Your task to perform on an android device: empty trash in the gmail app Image 0: 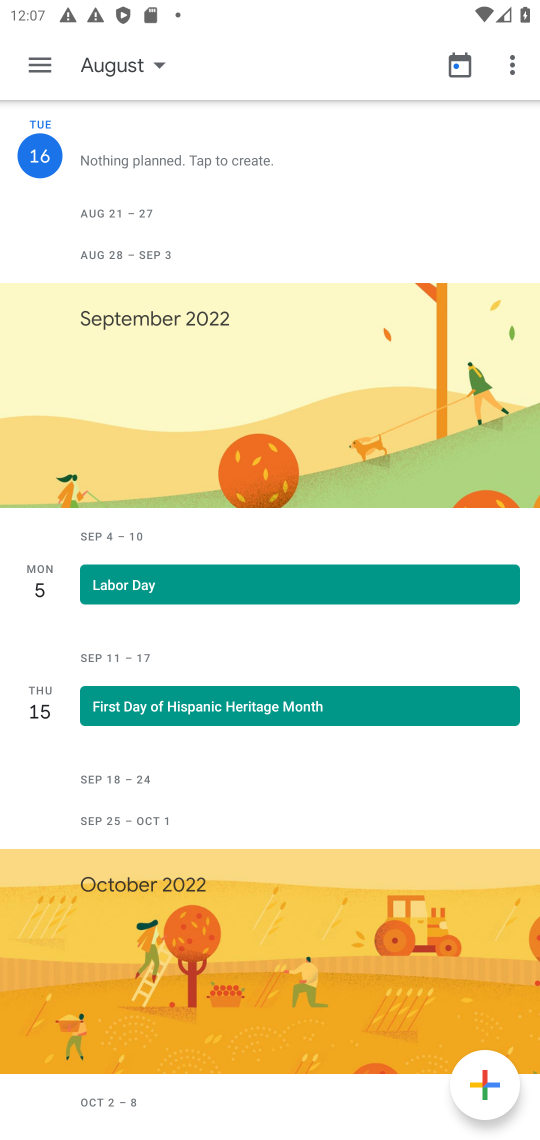
Step 0: press home button
Your task to perform on an android device: empty trash in the gmail app Image 1: 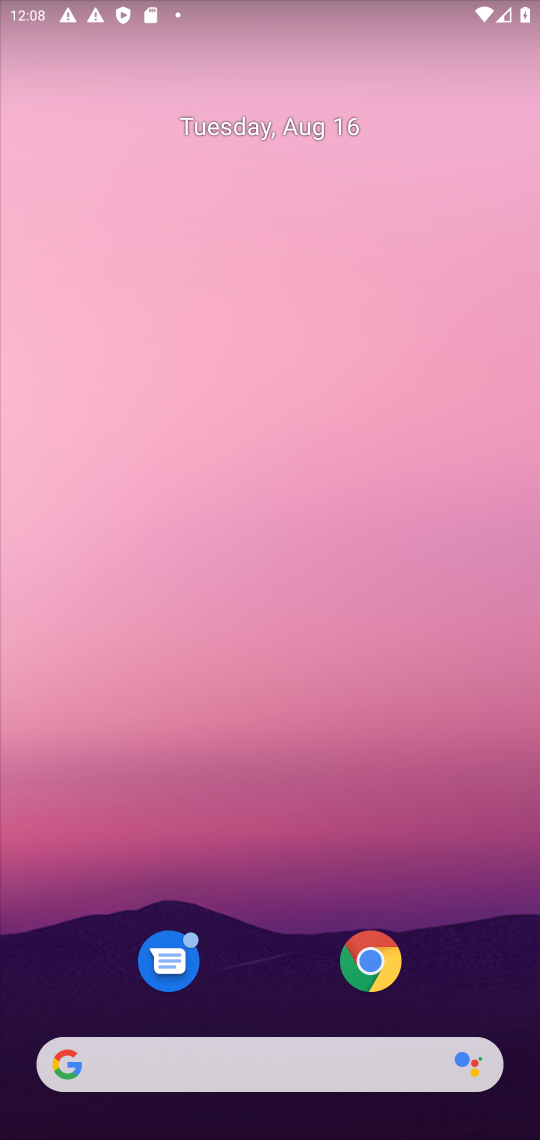
Step 1: drag from (212, 990) to (309, 50)
Your task to perform on an android device: empty trash in the gmail app Image 2: 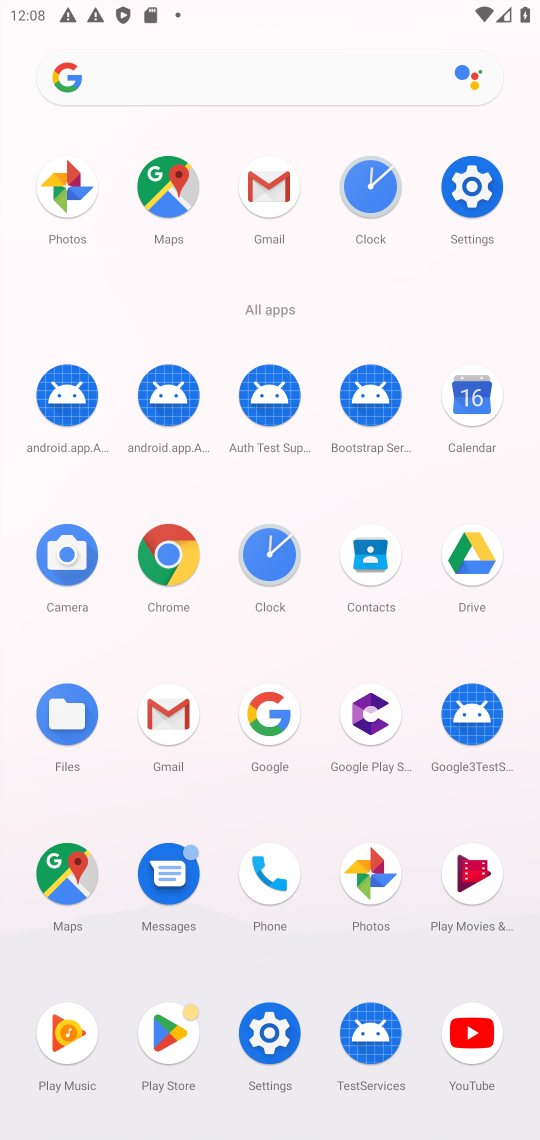
Step 2: click (164, 701)
Your task to perform on an android device: empty trash in the gmail app Image 3: 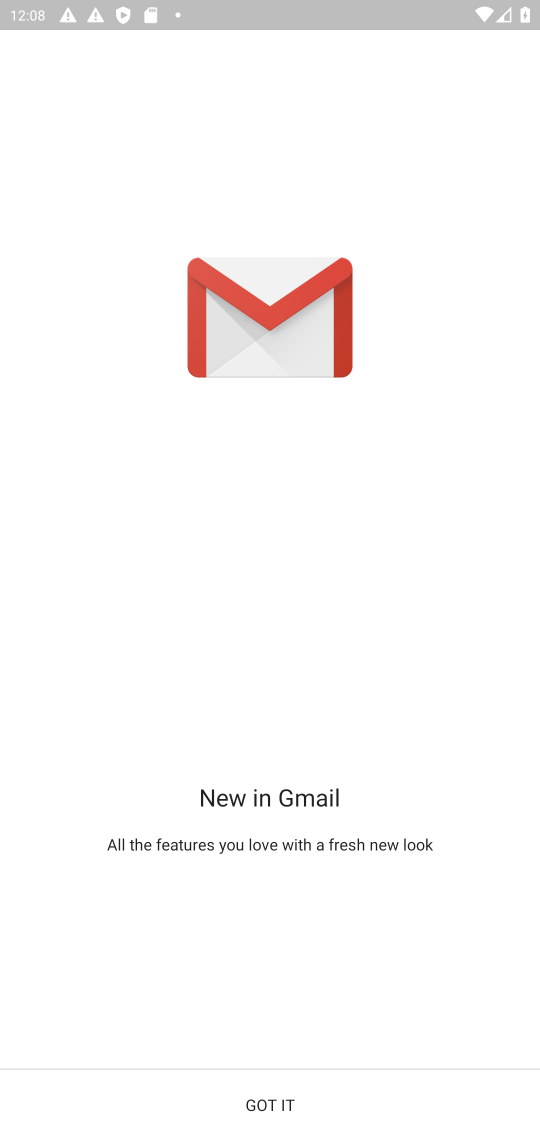
Step 3: click (278, 1103)
Your task to perform on an android device: empty trash in the gmail app Image 4: 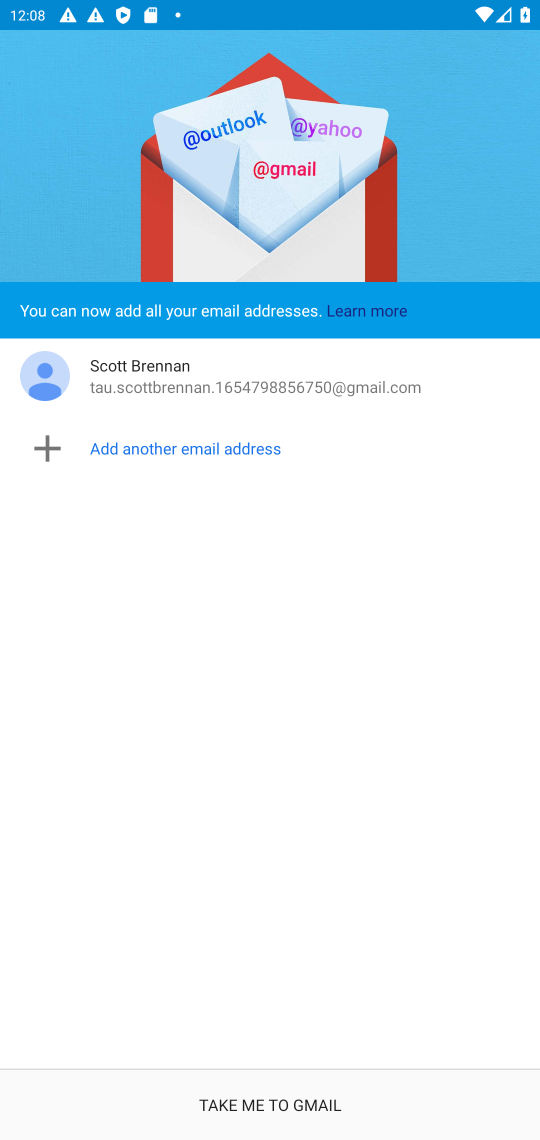
Step 4: click (290, 1092)
Your task to perform on an android device: empty trash in the gmail app Image 5: 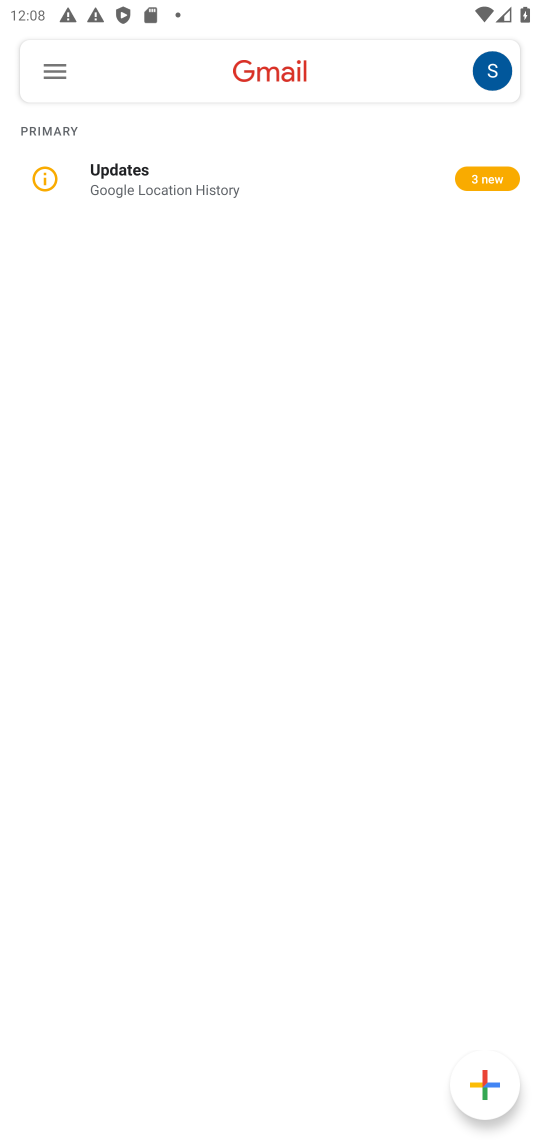
Step 5: click (56, 70)
Your task to perform on an android device: empty trash in the gmail app Image 6: 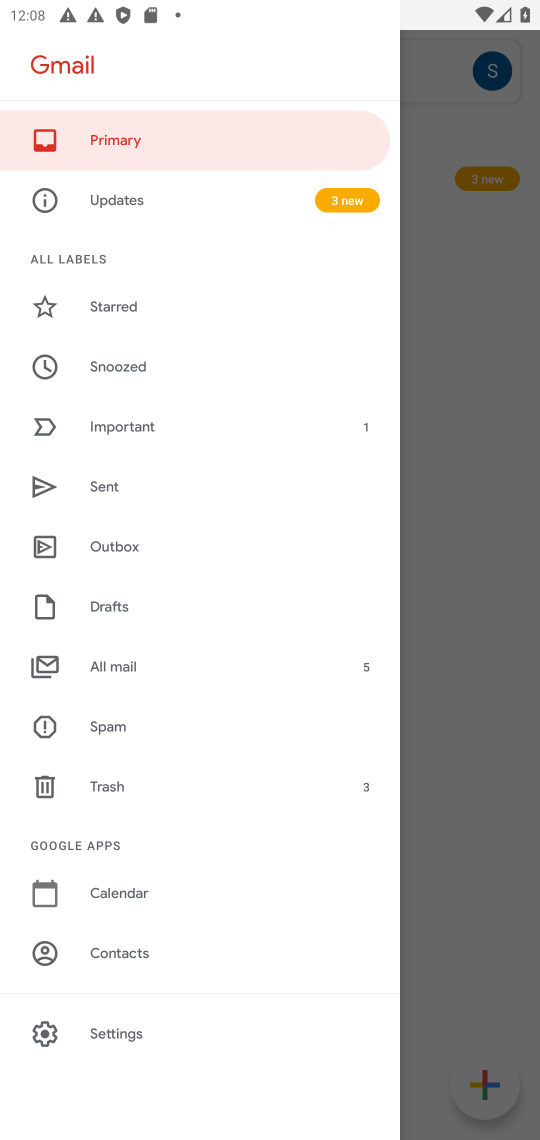
Step 6: click (78, 784)
Your task to perform on an android device: empty trash in the gmail app Image 7: 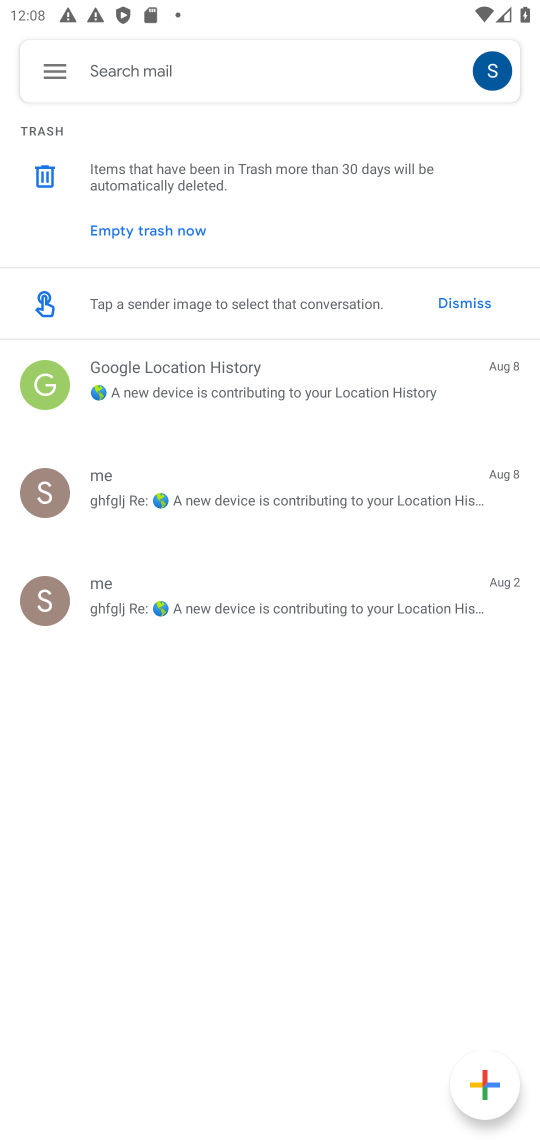
Step 7: click (59, 378)
Your task to perform on an android device: empty trash in the gmail app Image 8: 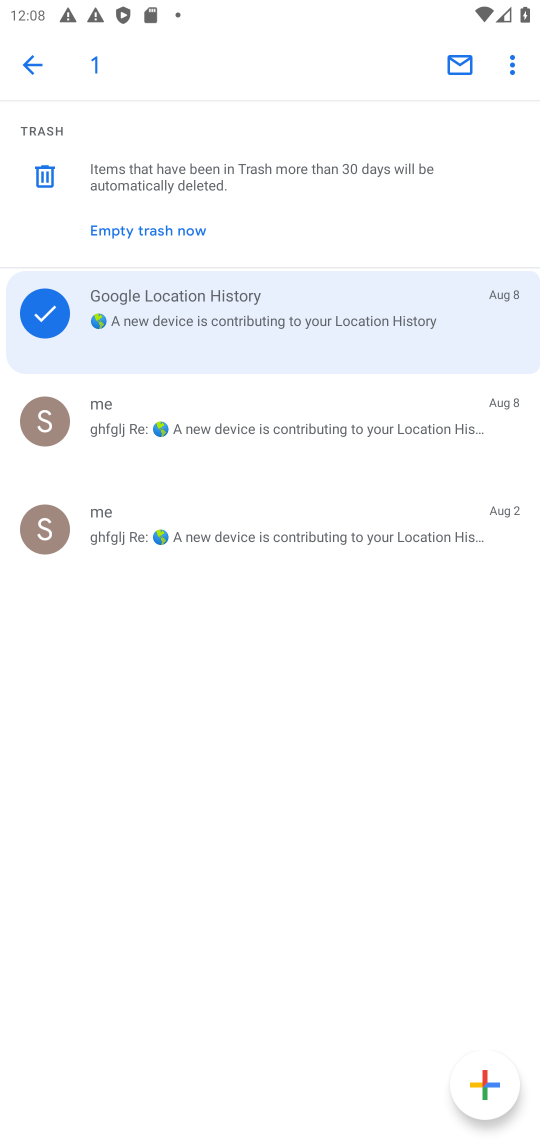
Step 8: click (50, 493)
Your task to perform on an android device: empty trash in the gmail app Image 9: 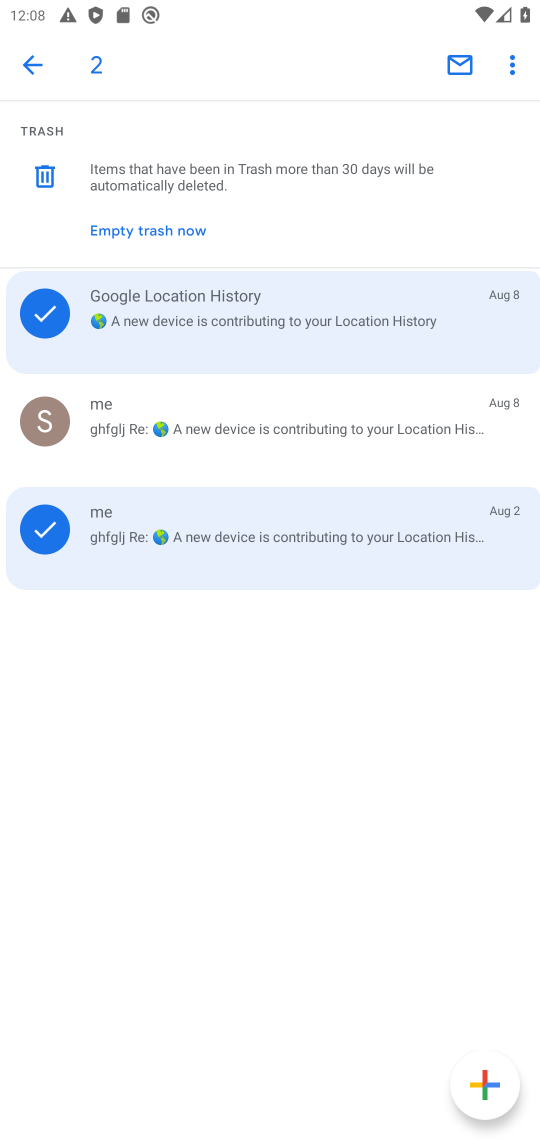
Step 9: click (38, 428)
Your task to perform on an android device: empty trash in the gmail app Image 10: 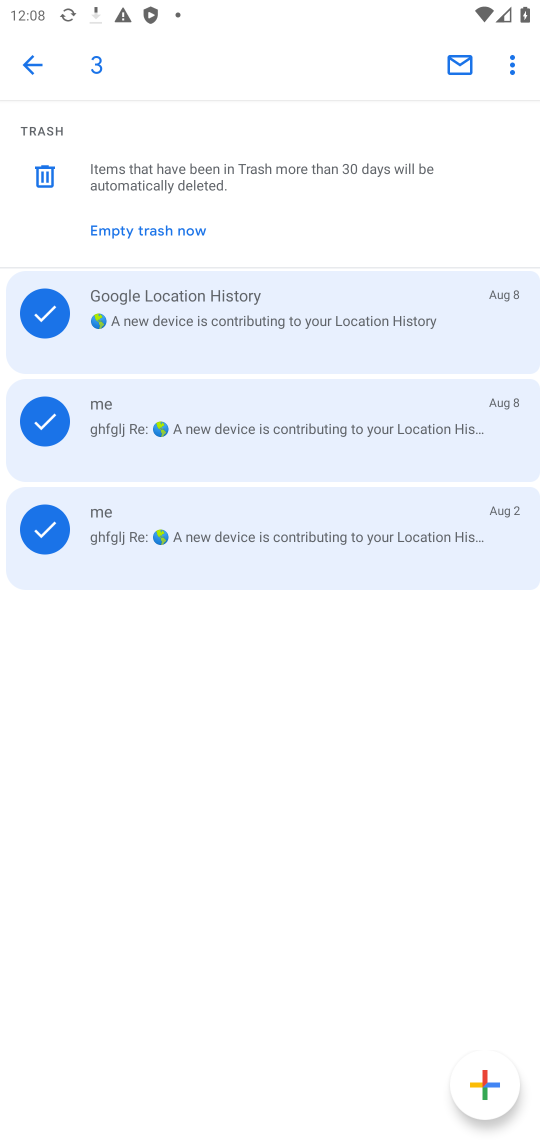
Step 10: click (43, 181)
Your task to perform on an android device: empty trash in the gmail app Image 11: 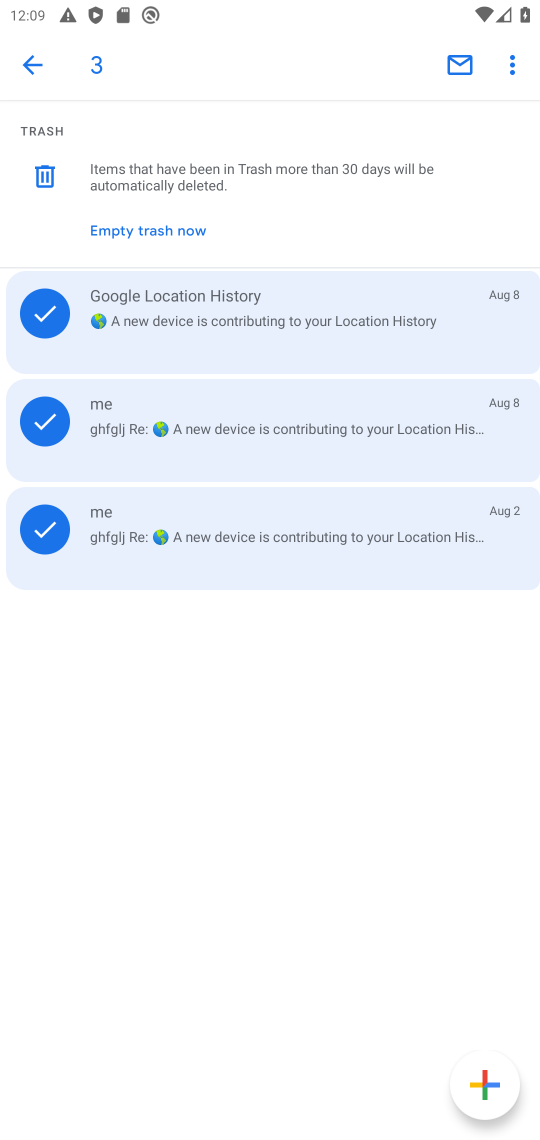
Step 11: click (509, 71)
Your task to perform on an android device: empty trash in the gmail app Image 12: 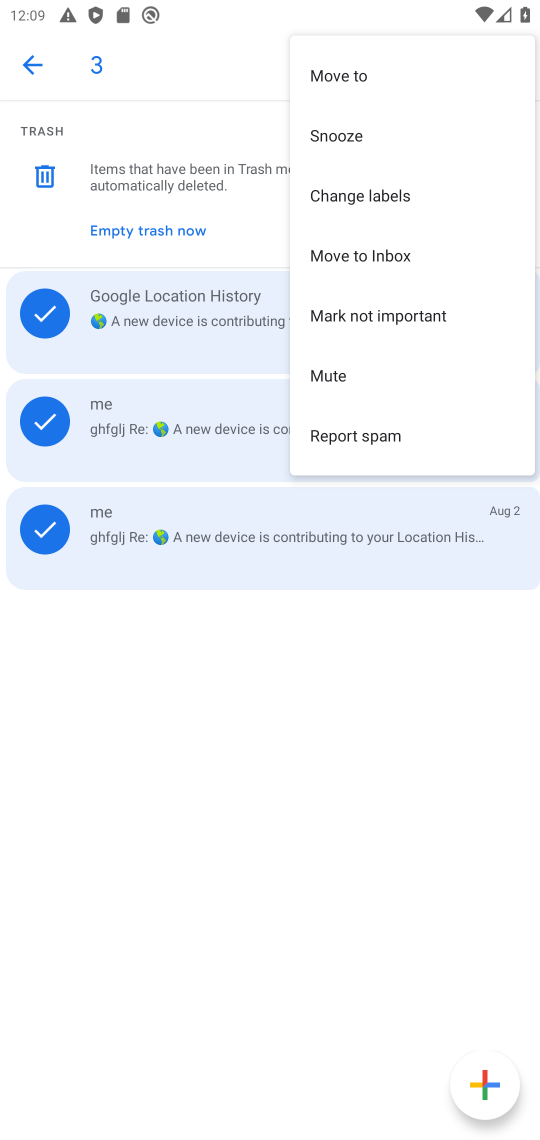
Step 12: click (312, 615)
Your task to perform on an android device: empty trash in the gmail app Image 13: 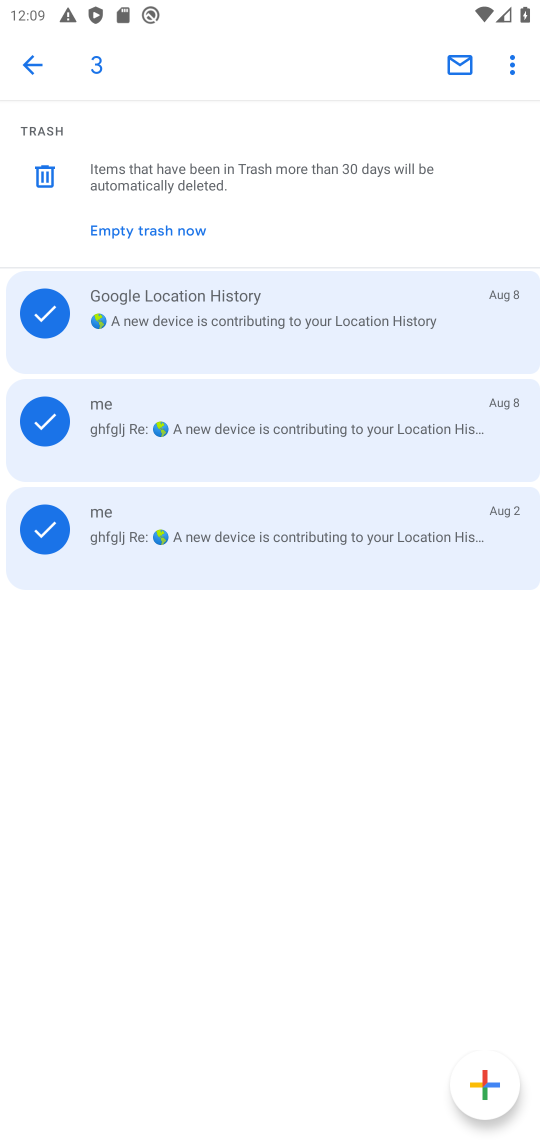
Step 13: drag from (375, 543) to (539, 514)
Your task to perform on an android device: empty trash in the gmail app Image 14: 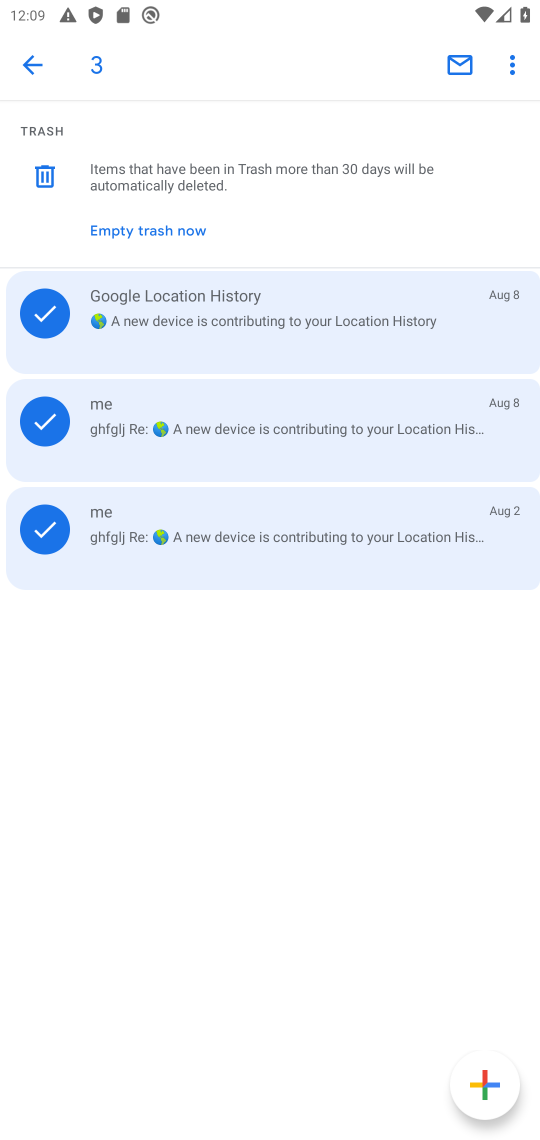
Step 14: drag from (450, 435) to (27, 417)
Your task to perform on an android device: empty trash in the gmail app Image 15: 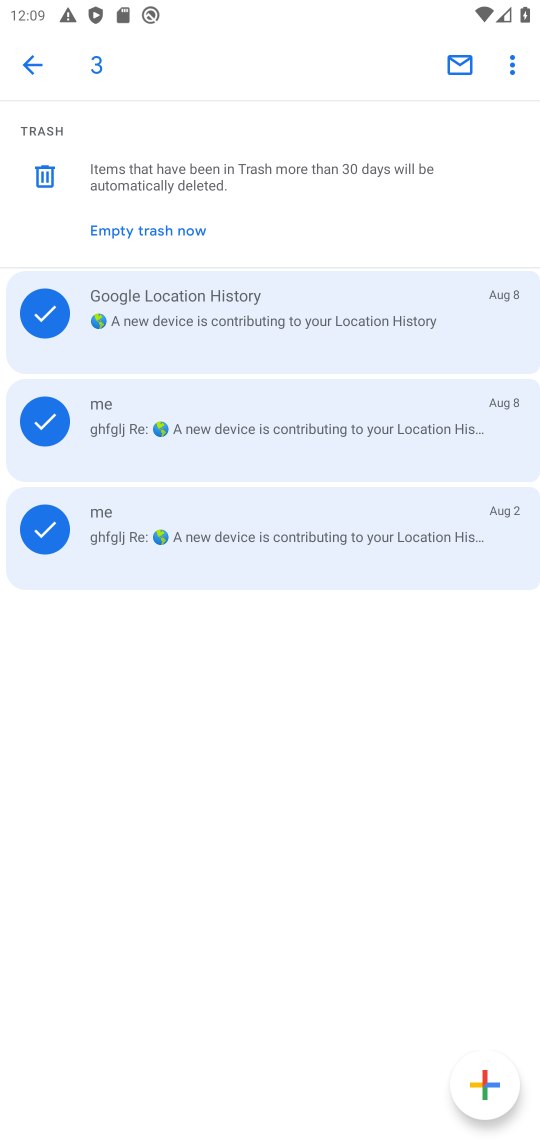
Step 15: drag from (286, 323) to (38, 328)
Your task to perform on an android device: empty trash in the gmail app Image 16: 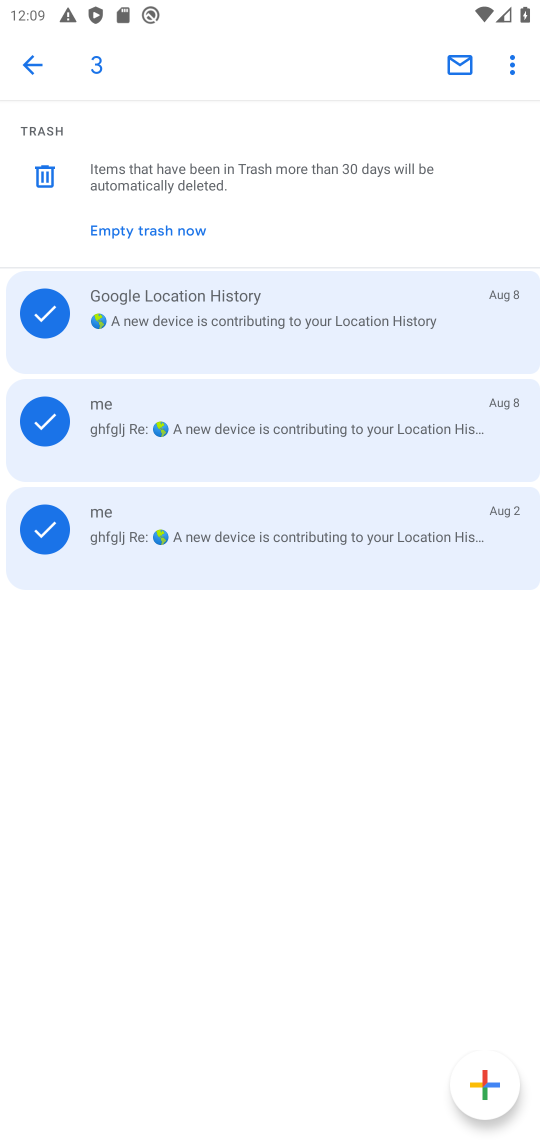
Step 16: click (39, 166)
Your task to perform on an android device: empty trash in the gmail app Image 17: 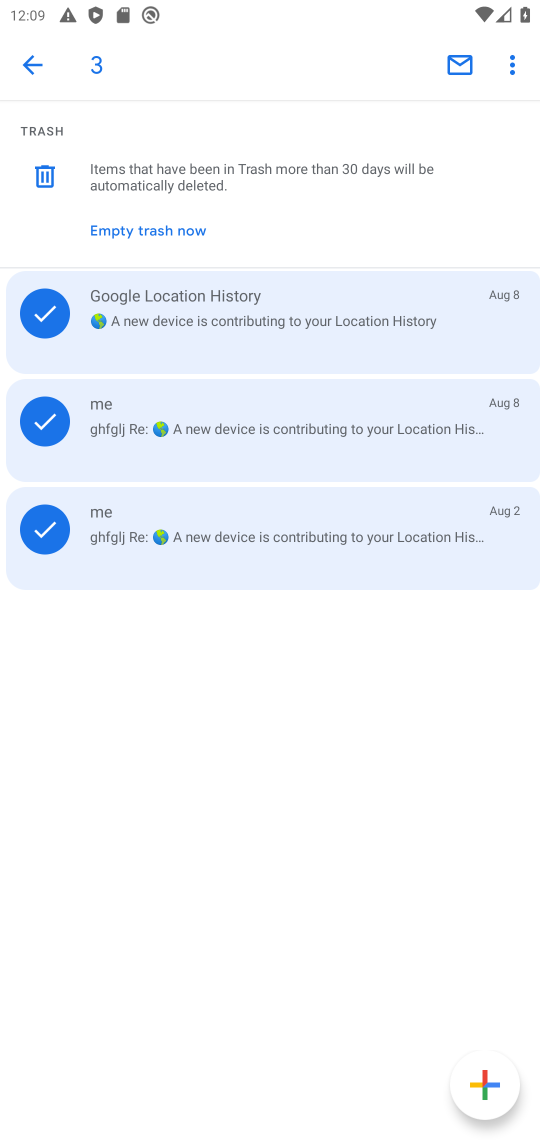
Step 17: click (327, 218)
Your task to perform on an android device: empty trash in the gmail app Image 18: 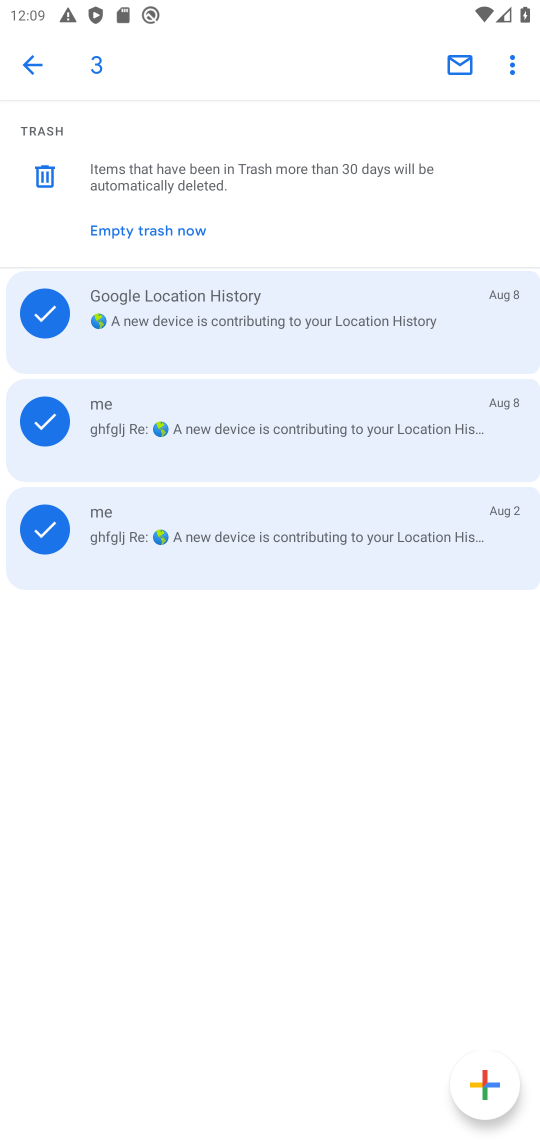
Step 18: click (40, 309)
Your task to perform on an android device: empty trash in the gmail app Image 19: 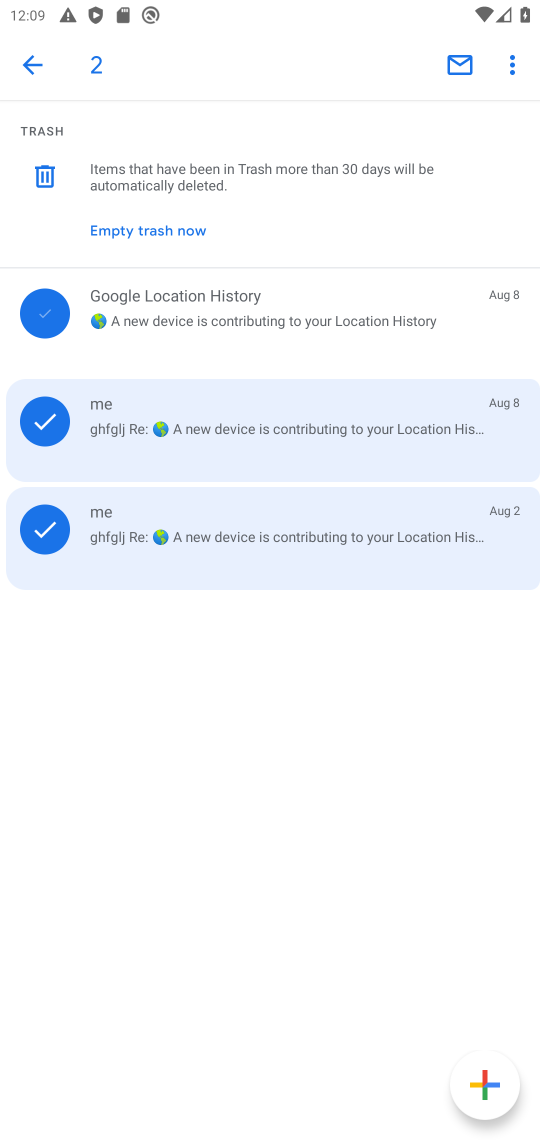
Step 19: click (40, 415)
Your task to perform on an android device: empty trash in the gmail app Image 20: 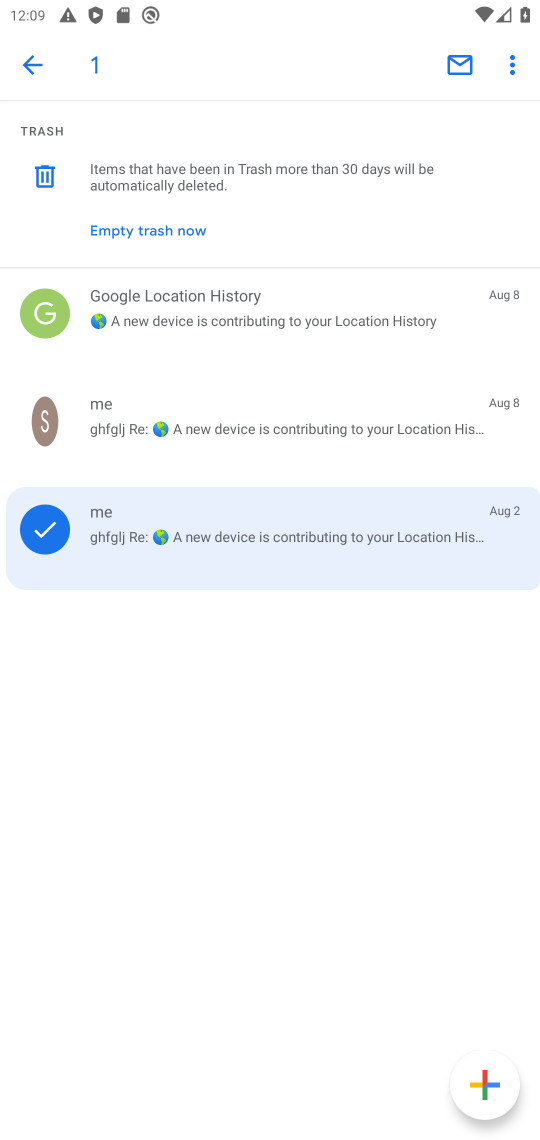
Step 20: click (54, 505)
Your task to perform on an android device: empty trash in the gmail app Image 21: 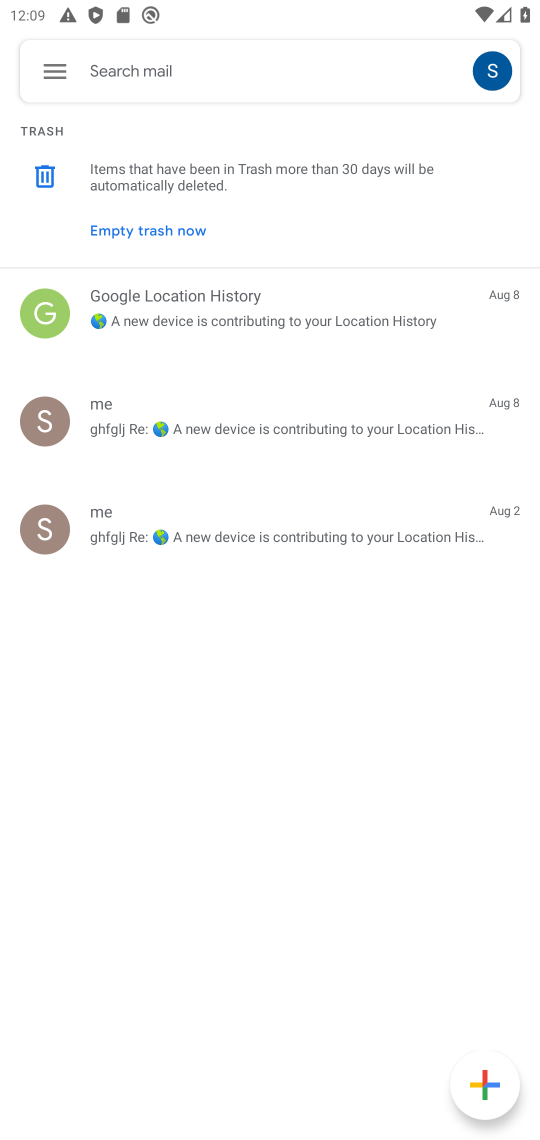
Step 21: click (133, 308)
Your task to perform on an android device: empty trash in the gmail app Image 22: 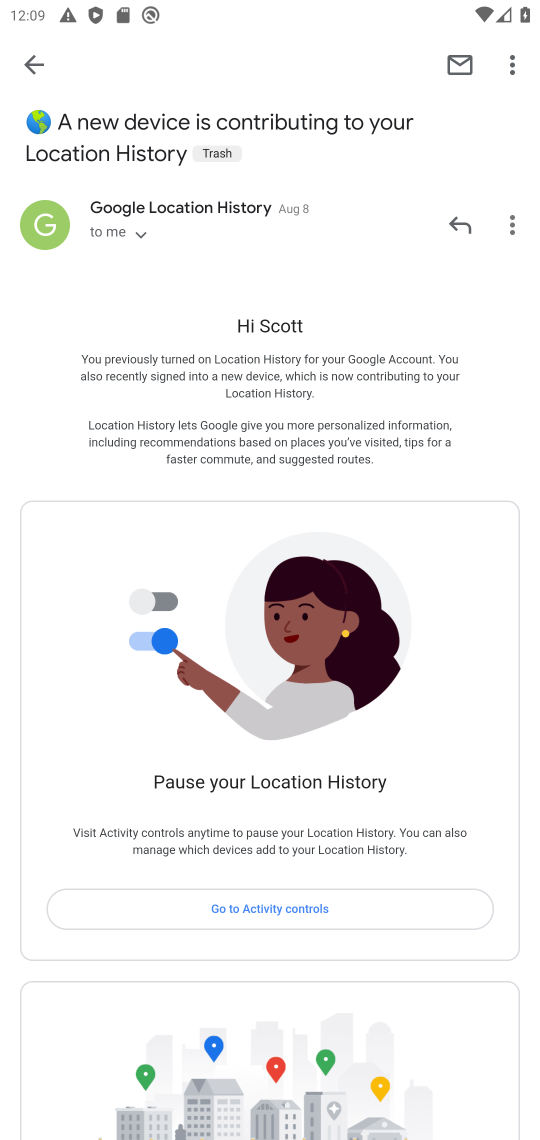
Step 22: click (510, 231)
Your task to perform on an android device: empty trash in the gmail app Image 23: 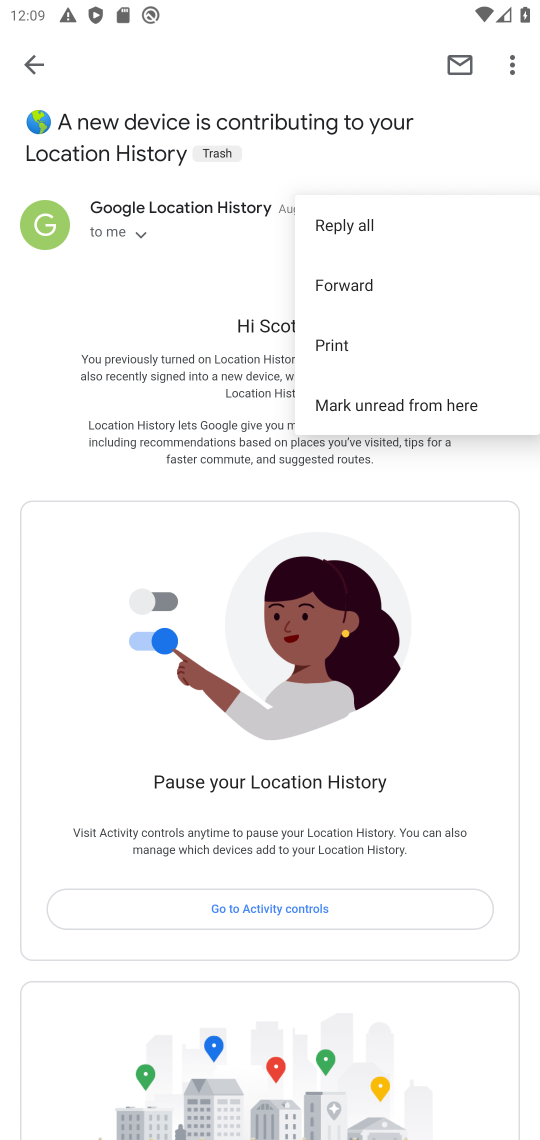
Step 23: click (129, 305)
Your task to perform on an android device: empty trash in the gmail app Image 24: 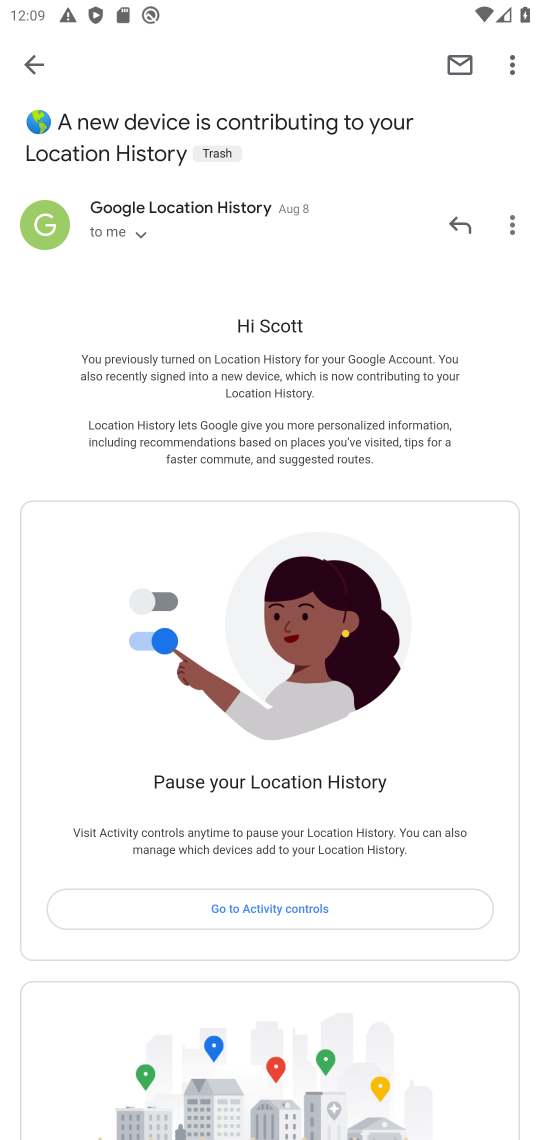
Step 24: click (4, 66)
Your task to perform on an android device: empty trash in the gmail app Image 25: 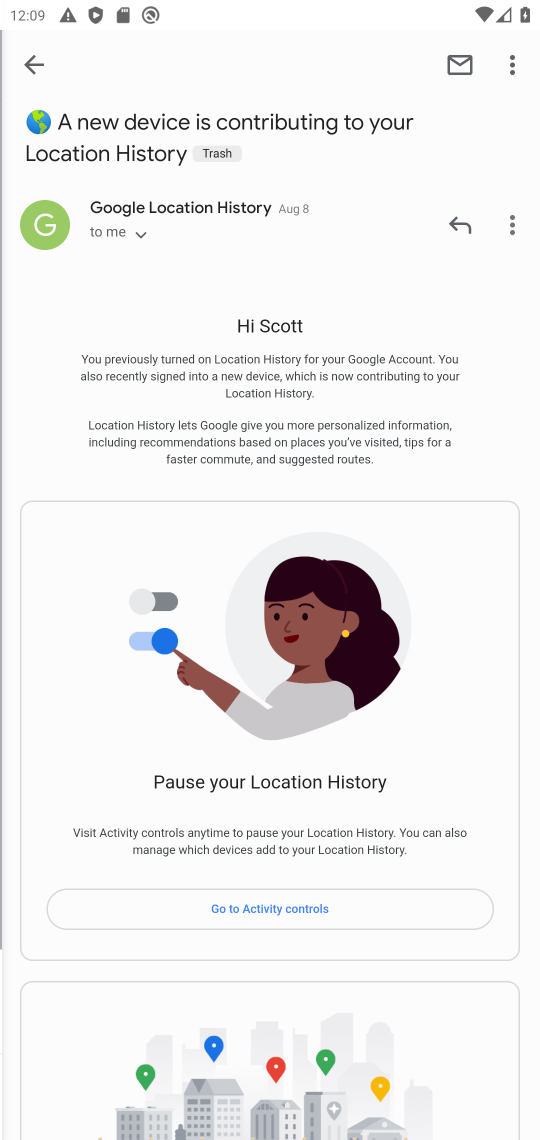
Step 25: click (10, 79)
Your task to perform on an android device: empty trash in the gmail app Image 26: 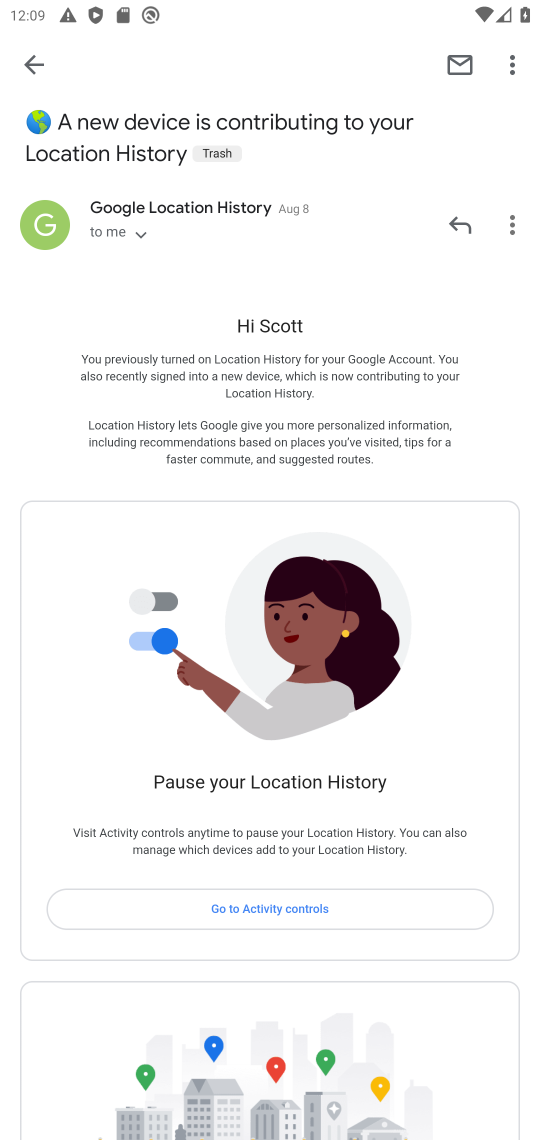
Step 26: click (36, 67)
Your task to perform on an android device: empty trash in the gmail app Image 27: 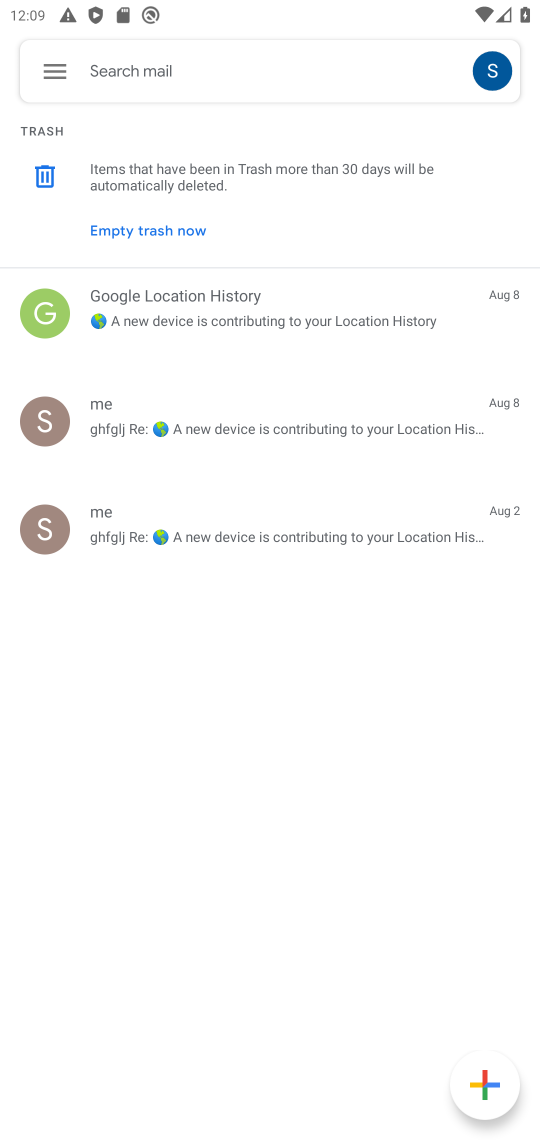
Step 27: click (151, 220)
Your task to perform on an android device: empty trash in the gmail app Image 28: 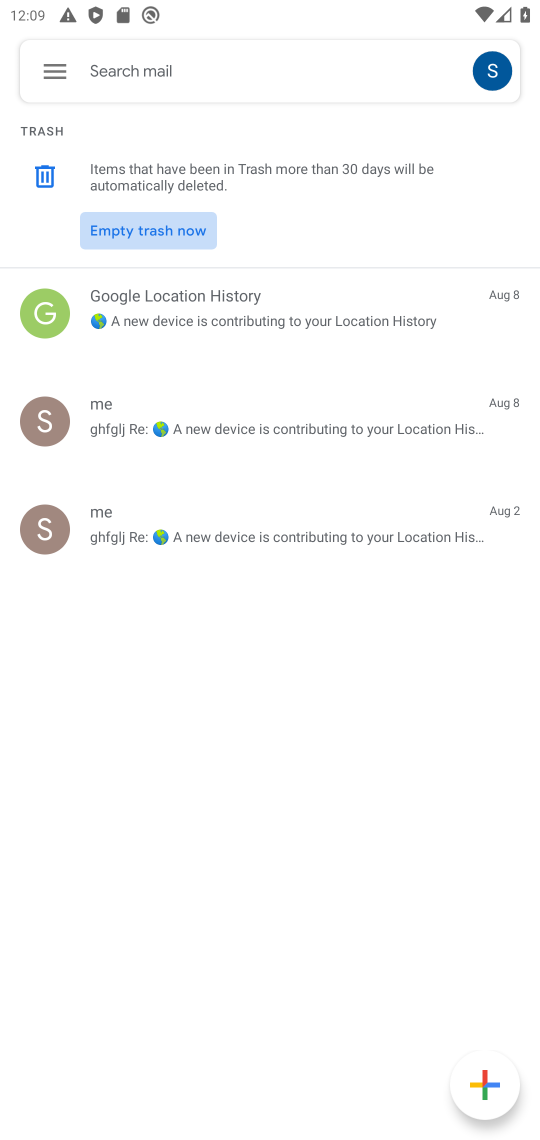
Step 28: click (154, 228)
Your task to perform on an android device: empty trash in the gmail app Image 29: 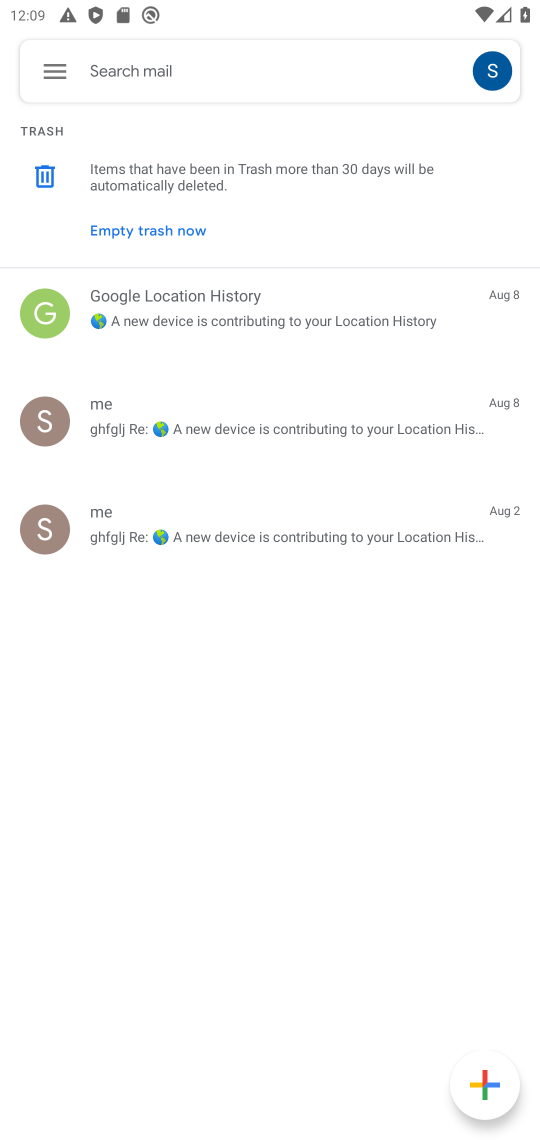
Step 29: click (178, 229)
Your task to perform on an android device: empty trash in the gmail app Image 30: 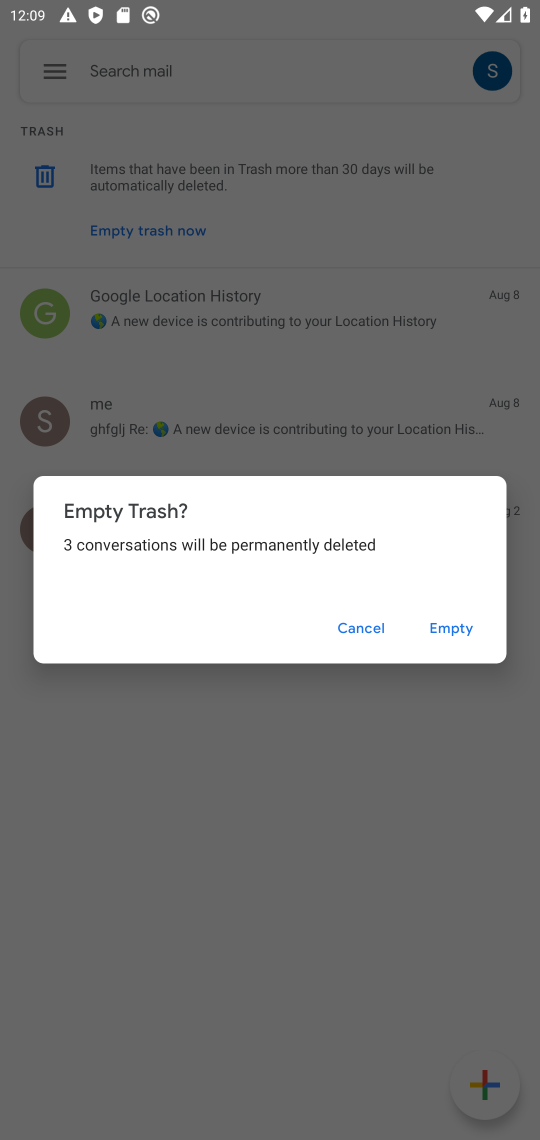
Step 30: click (446, 622)
Your task to perform on an android device: empty trash in the gmail app Image 31: 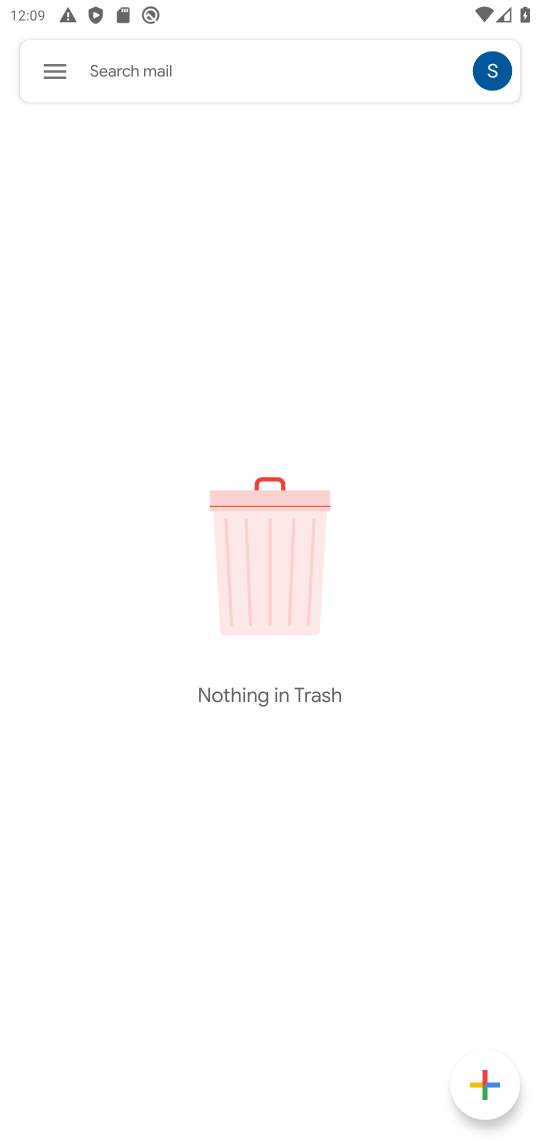
Step 31: task complete